Your task to perform on an android device: Go to calendar. Show me events next week Image 0: 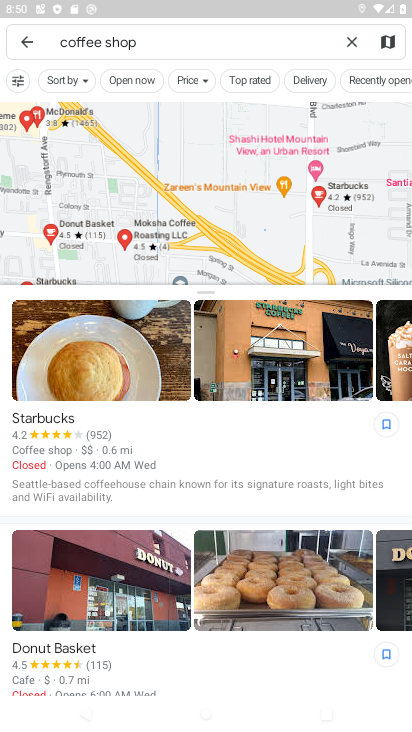
Step 0: press home button
Your task to perform on an android device: Go to calendar. Show me events next week Image 1: 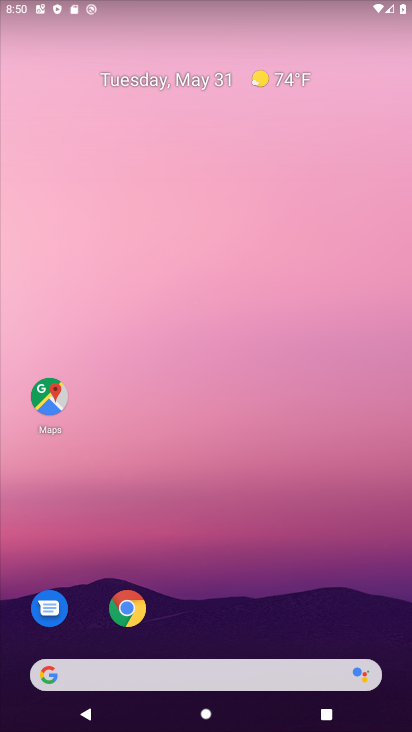
Step 1: drag from (216, 647) to (168, 221)
Your task to perform on an android device: Go to calendar. Show me events next week Image 2: 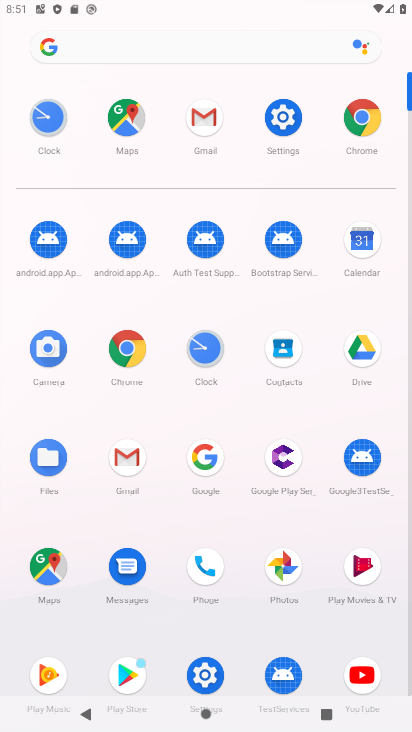
Step 2: click (369, 244)
Your task to perform on an android device: Go to calendar. Show me events next week Image 3: 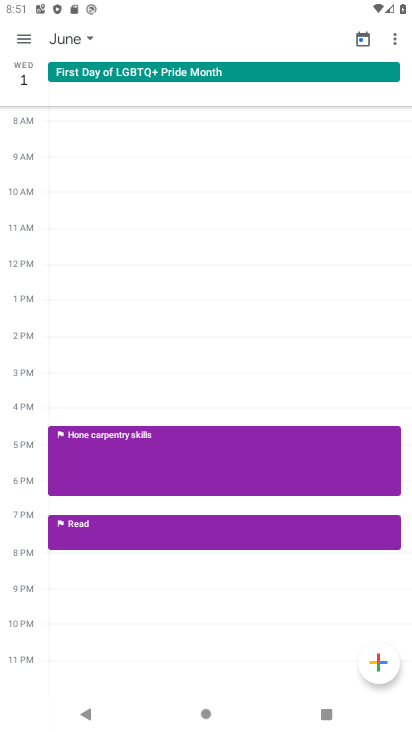
Step 3: click (22, 42)
Your task to perform on an android device: Go to calendar. Show me events next week Image 4: 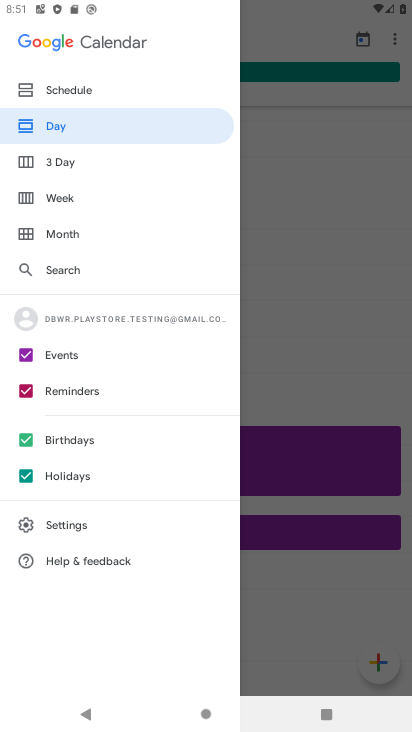
Step 4: click (58, 189)
Your task to perform on an android device: Go to calendar. Show me events next week Image 5: 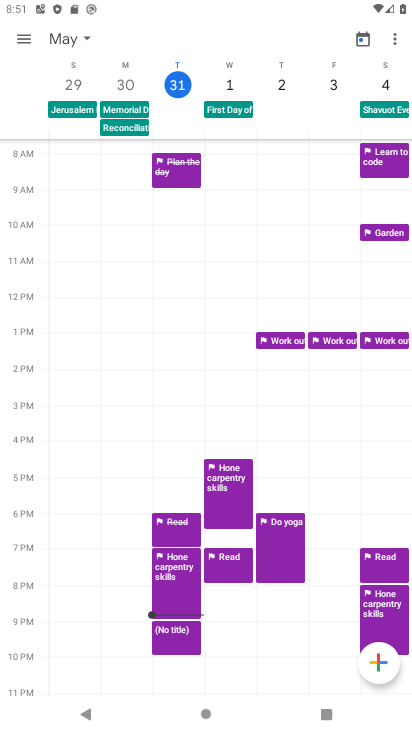
Step 5: task complete